Your task to perform on an android device: Go to Google maps Image 0: 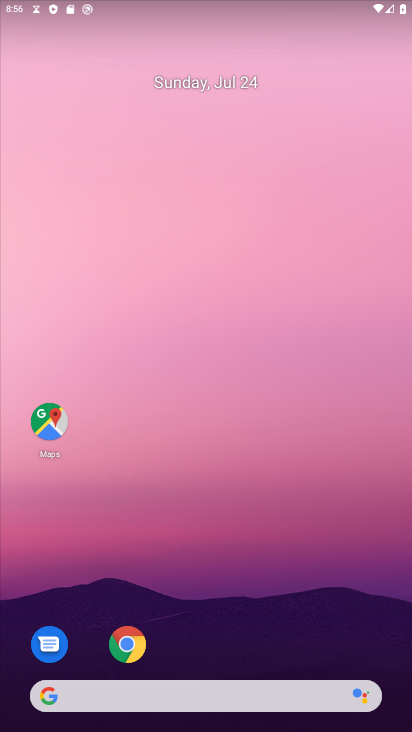
Step 0: drag from (245, 606) to (276, 4)
Your task to perform on an android device: Go to Google maps Image 1: 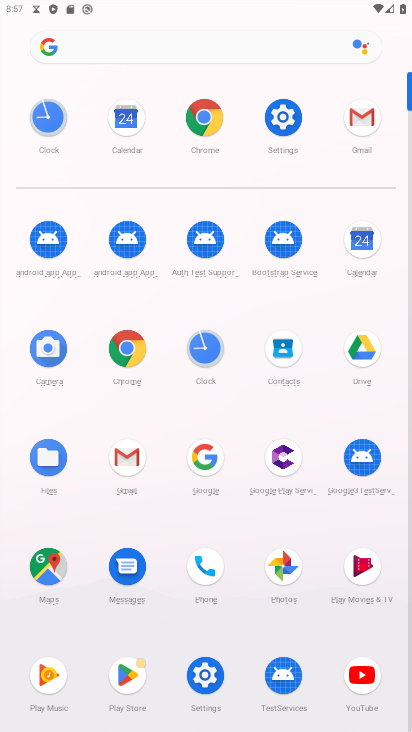
Step 1: click (209, 448)
Your task to perform on an android device: Go to Google maps Image 2: 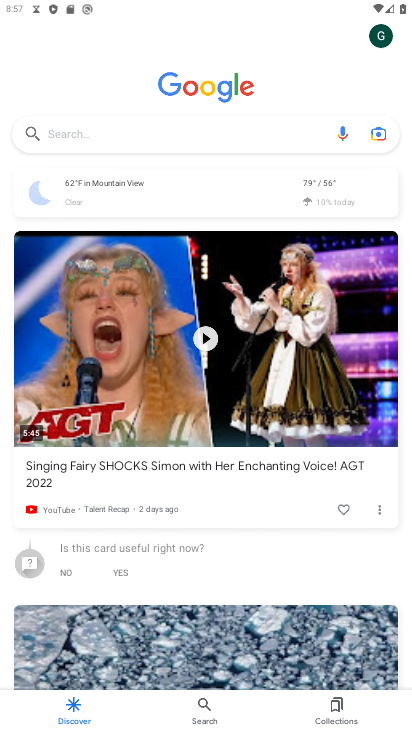
Step 2: press home button
Your task to perform on an android device: Go to Google maps Image 3: 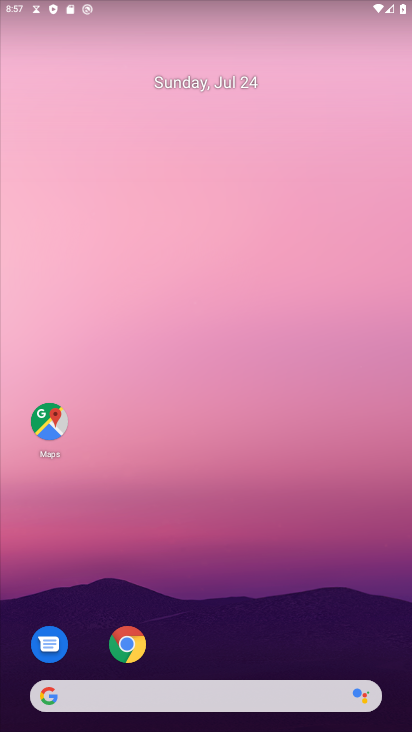
Step 3: click (49, 418)
Your task to perform on an android device: Go to Google maps Image 4: 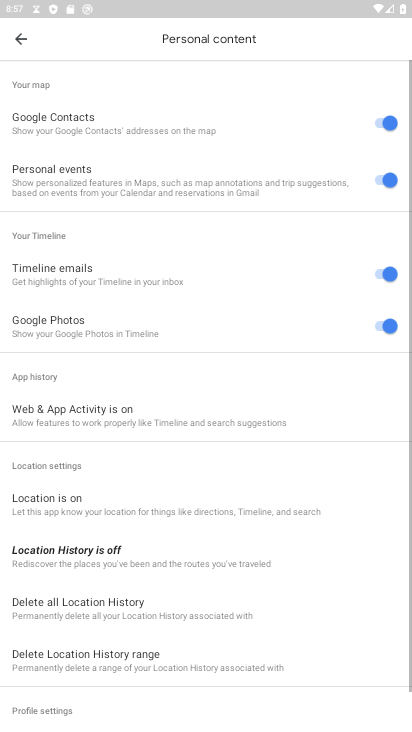
Step 4: task complete